Your task to perform on an android device: Go to Yahoo.com Image 0: 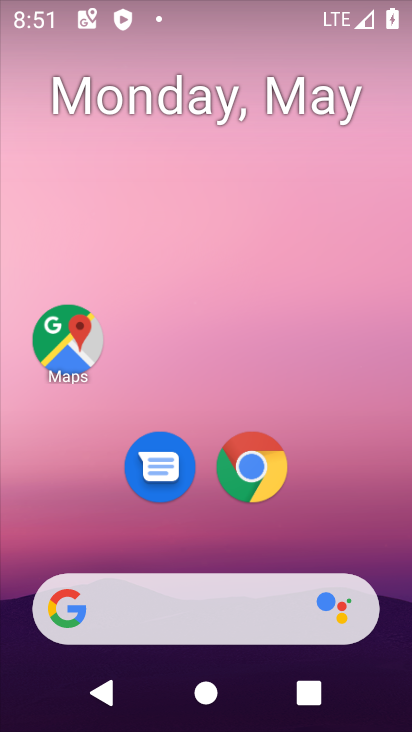
Step 0: click (257, 471)
Your task to perform on an android device: Go to Yahoo.com Image 1: 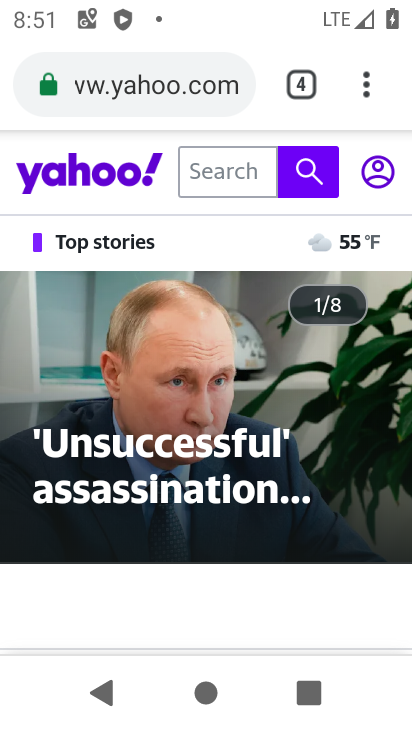
Step 1: task complete